Your task to perform on an android device: open chrome privacy settings Image 0: 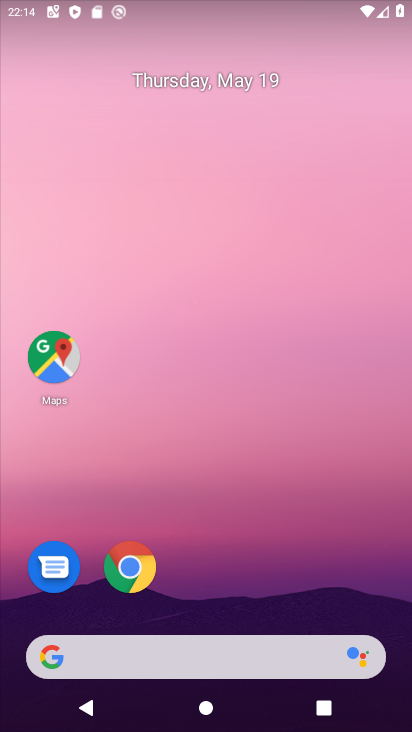
Step 0: press home button
Your task to perform on an android device: open chrome privacy settings Image 1: 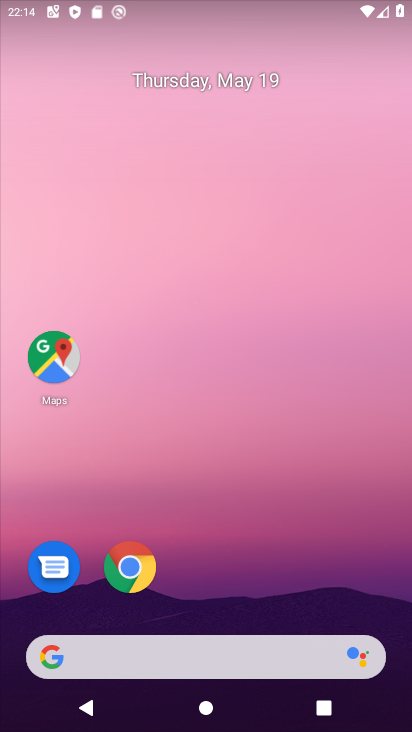
Step 1: drag from (213, 604) to (243, 107)
Your task to perform on an android device: open chrome privacy settings Image 2: 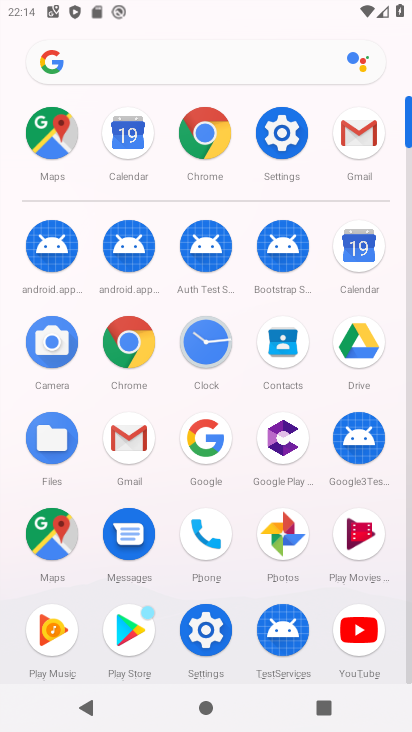
Step 2: click (282, 122)
Your task to perform on an android device: open chrome privacy settings Image 3: 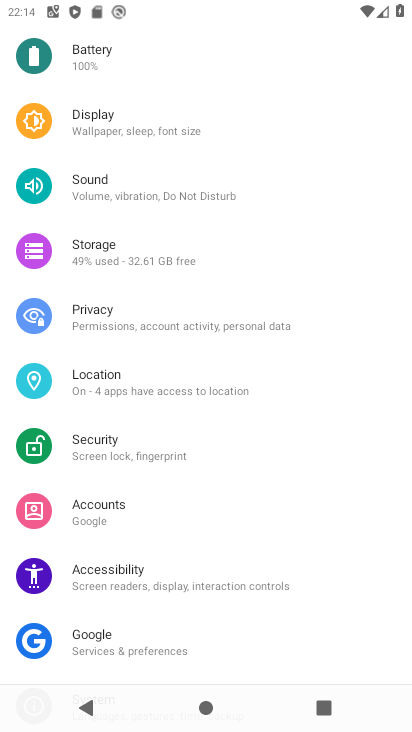
Step 3: press home button
Your task to perform on an android device: open chrome privacy settings Image 4: 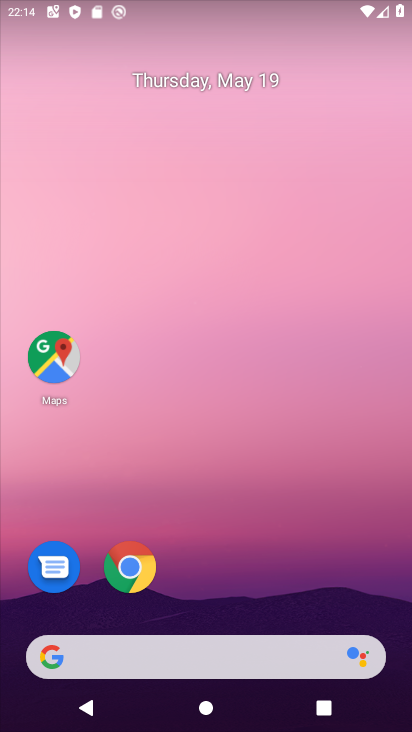
Step 4: click (129, 563)
Your task to perform on an android device: open chrome privacy settings Image 5: 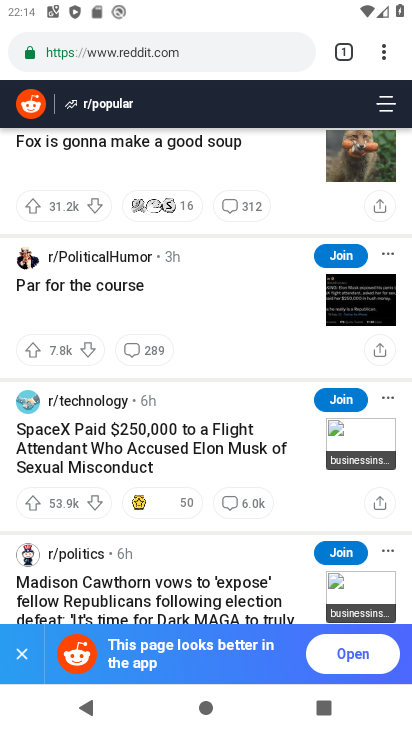
Step 5: click (385, 50)
Your task to perform on an android device: open chrome privacy settings Image 6: 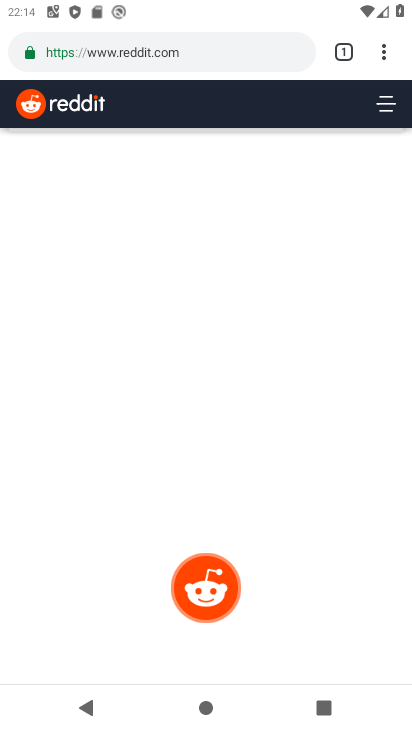
Step 6: click (379, 49)
Your task to perform on an android device: open chrome privacy settings Image 7: 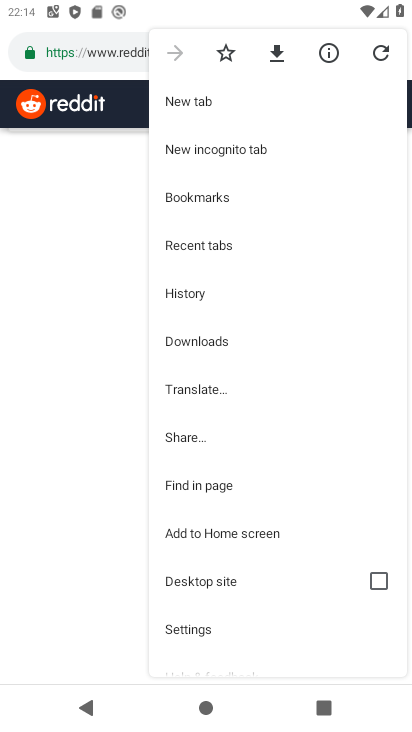
Step 7: click (218, 623)
Your task to perform on an android device: open chrome privacy settings Image 8: 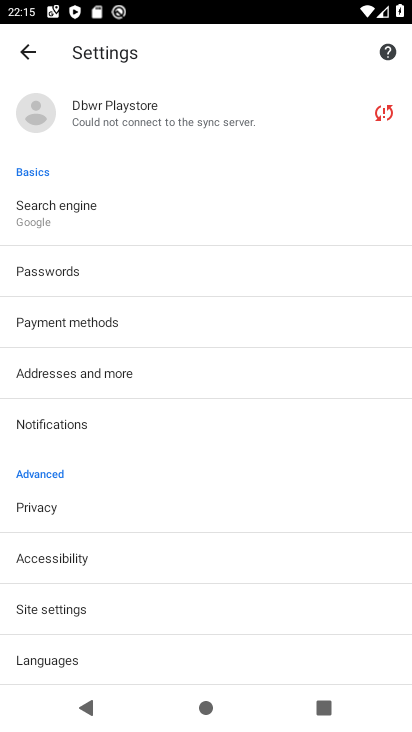
Step 8: click (96, 514)
Your task to perform on an android device: open chrome privacy settings Image 9: 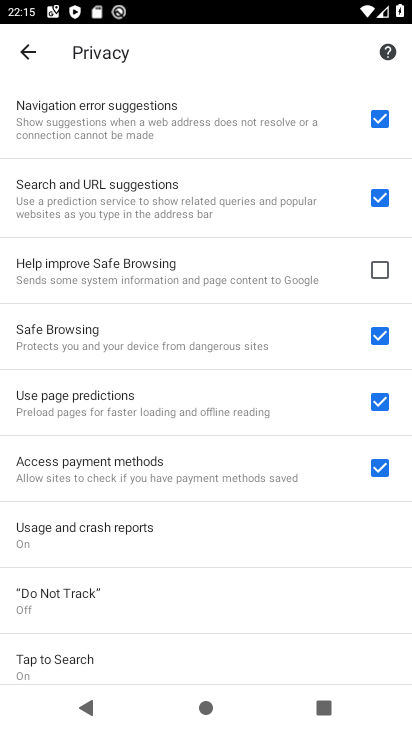
Step 9: task complete